Your task to perform on an android device: turn on the 12-hour format for clock Image 0: 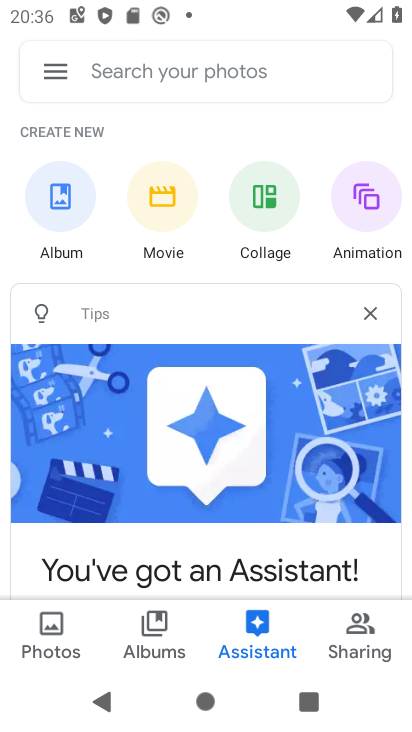
Step 0: press home button
Your task to perform on an android device: turn on the 12-hour format for clock Image 1: 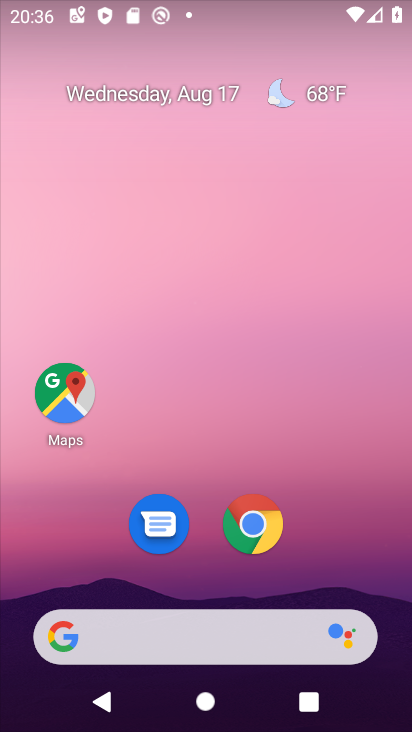
Step 1: drag from (320, 558) to (305, 0)
Your task to perform on an android device: turn on the 12-hour format for clock Image 2: 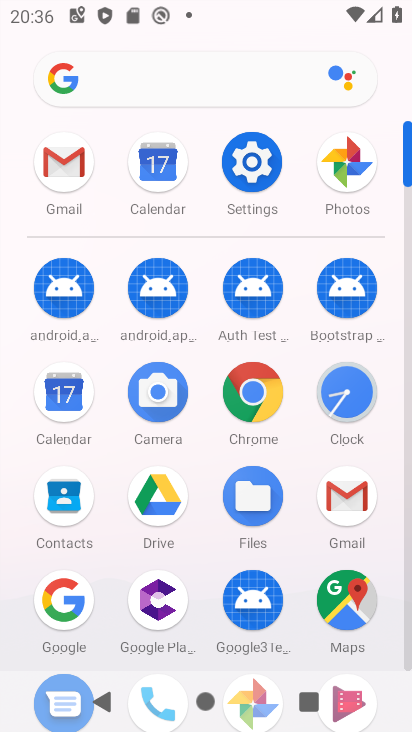
Step 2: click (347, 398)
Your task to perform on an android device: turn on the 12-hour format for clock Image 3: 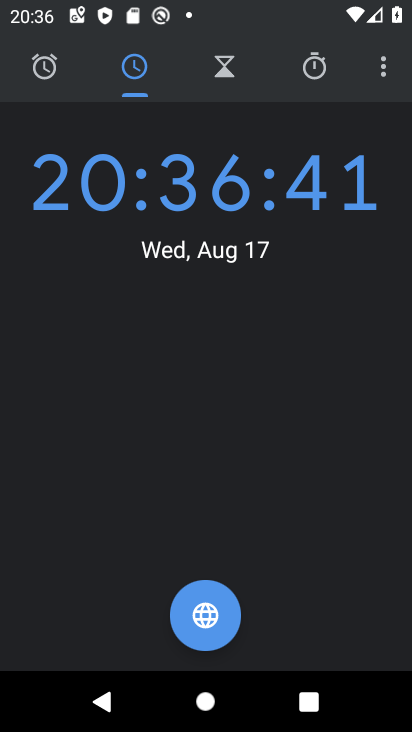
Step 3: click (379, 69)
Your task to perform on an android device: turn on the 12-hour format for clock Image 4: 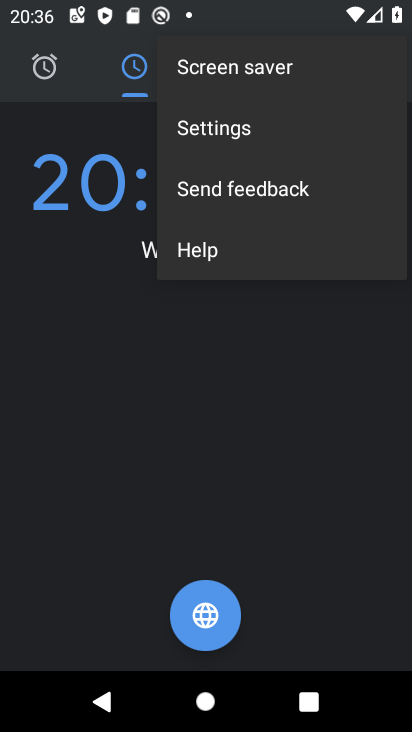
Step 4: click (303, 128)
Your task to perform on an android device: turn on the 12-hour format for clock Image 5: 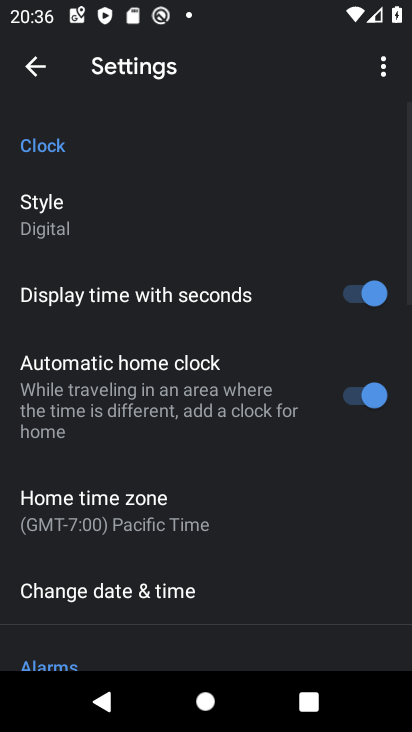
Step 5: click (247, 597)
Your task to perform on an android device: turn on the 12-hour format for clock Image 6: 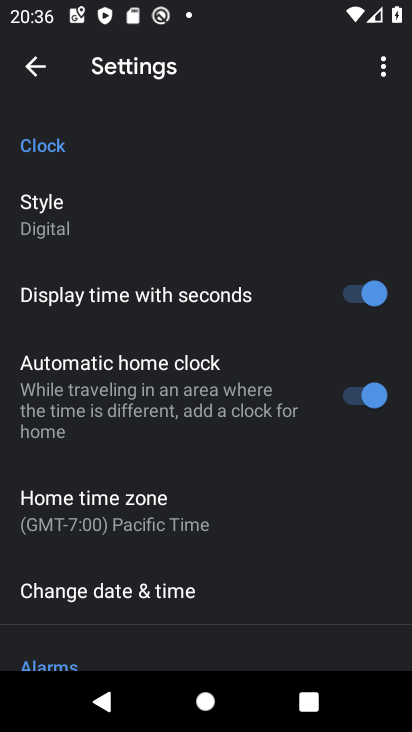
Step 6: click (247, 597)
Your task to perform on an android device: turn on the 12-hour format for clock Image 7: 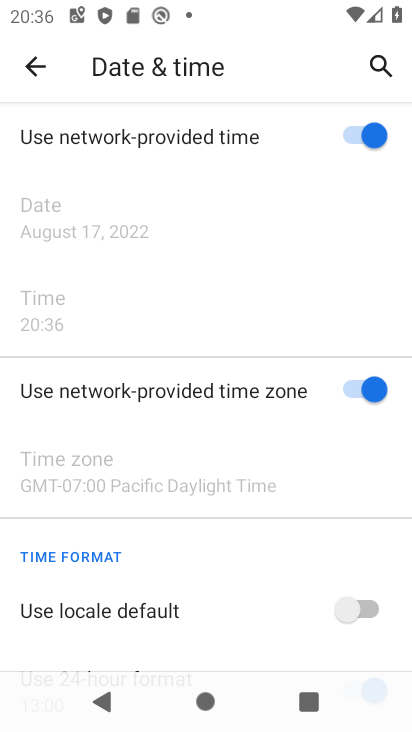
Step 7: click (354, 601)
Your task to perform on an android device: turn on the 12-hour format for clock Image 8: 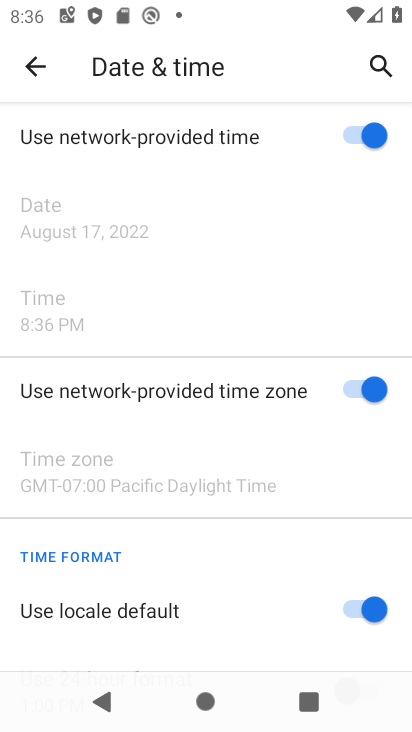
Step 8: click (38, 59)
Your task to perform on an android device: turn on the 12-hour format for clock Image 9: 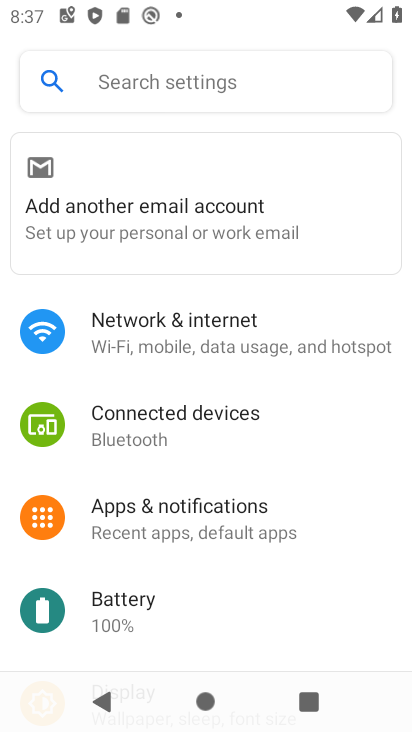
Step 9: task complete